Your task to perform on an android device: change the clock display to show seconds Image 0: 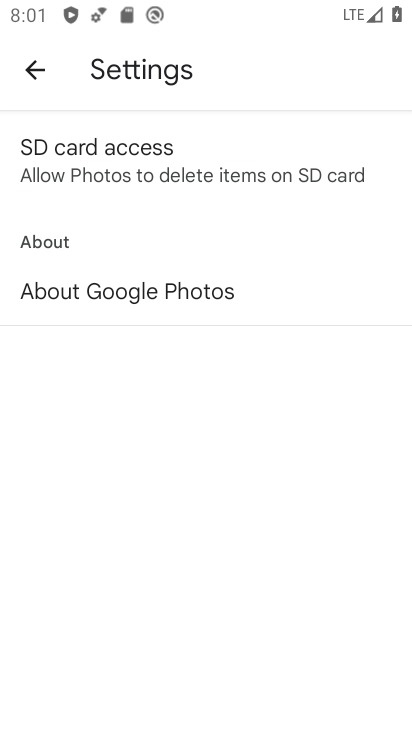
Step 0: drag from (367, 411) to (360, 152)
Your task to perform on an android device: change the clock display to show seconds Image 1: 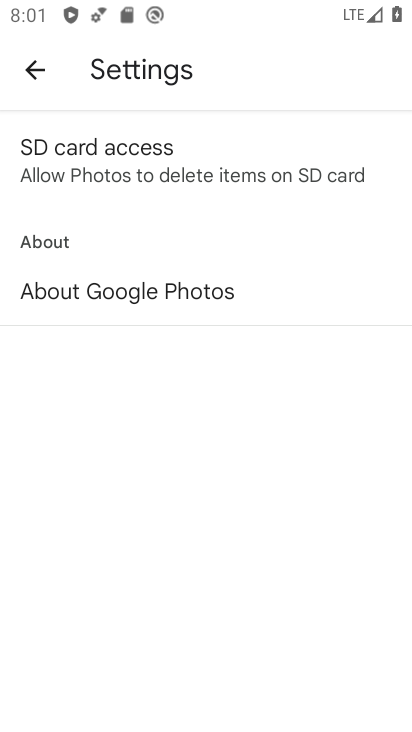
Step 1: press back button
Your task to perform on an android device: change the clock display to show seconds Image 2: 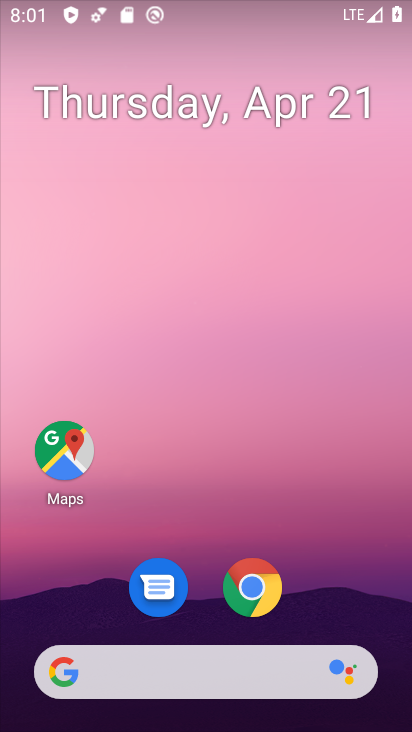
Step 2: press home button
Your task to perform on an android device: change the clock display to show seconds Image 3: 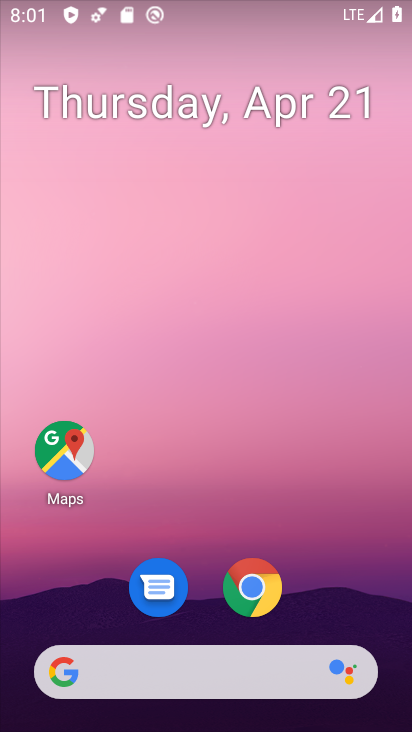
Step 3: drag from (359, 589) to (366, 89)
Your task to perform on an android device: change the clock display to show seconds Image 4: 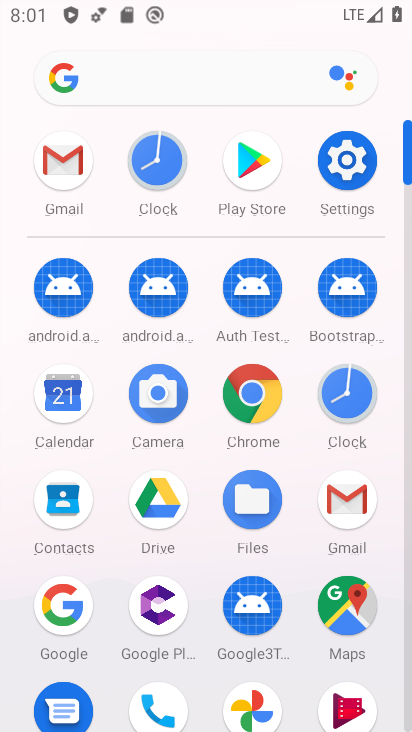
Step 4: click (348, 403)
Your task to perform on an android device: change the clock display to show seconds Image 5: 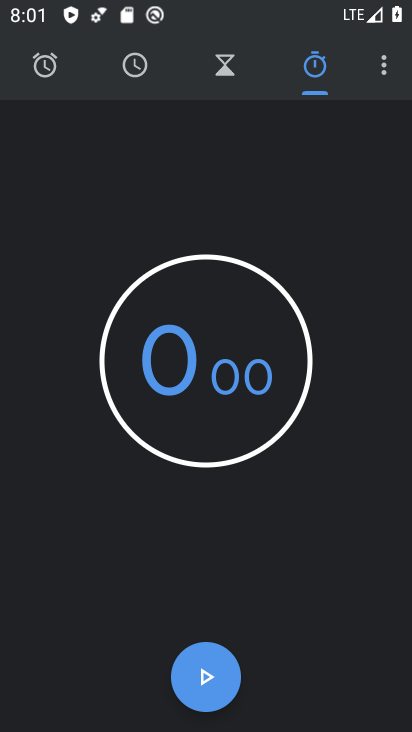
Step 5: click (380, 64)
Your task to perform on an android device: change the clock display to show seconds Image 6: 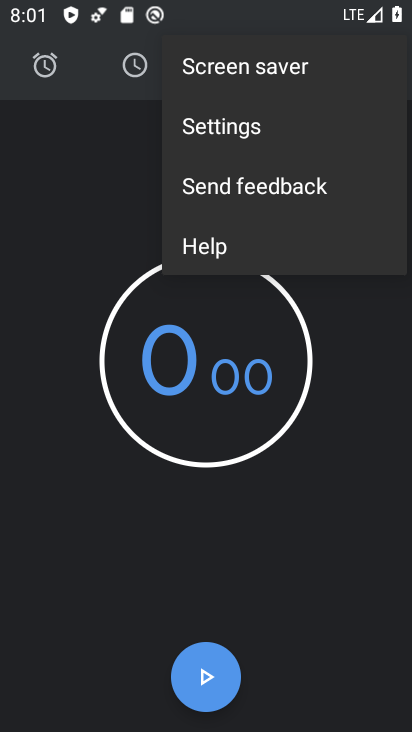
Step 6: click (228, 124)
Your task to perform on an android device: change the clock display to show seconds Image 7: 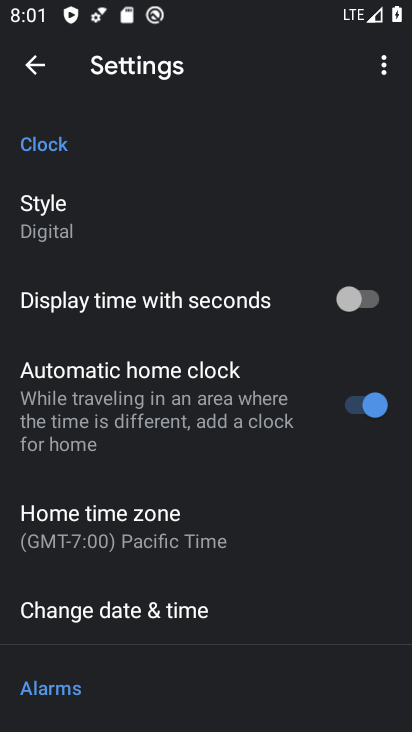
Step 7: click (370, 289)
Your task to perform on an android device: change the clock display to show seconds Image 8: 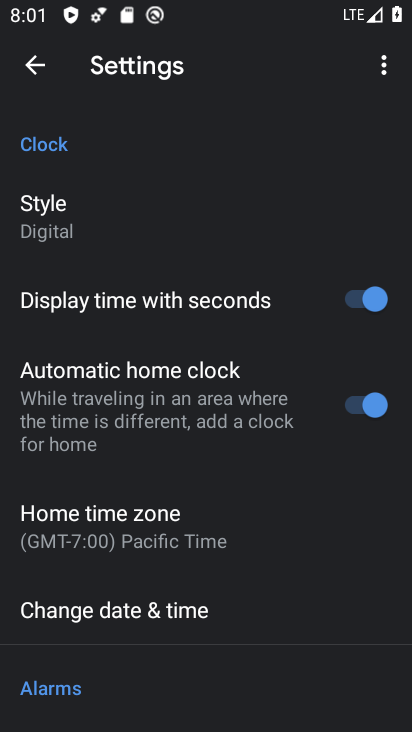
Step 8: task complete